Your task to perform on an android device: toggle show notifications on the lock screen Image 0: 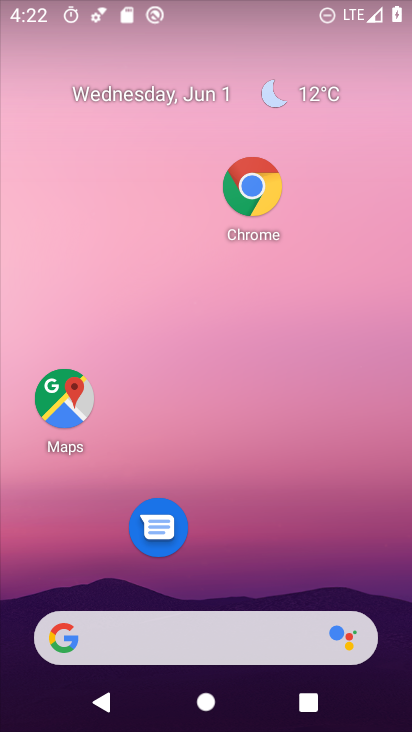
Step 0: drag from (195, 681) to (281, 218)
Your task to perform on an android device: toggle show notifications on the lock screen Image 1: 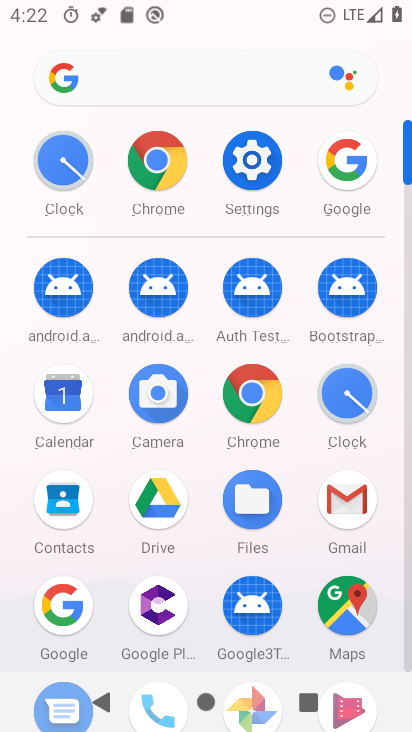
Step 1: click (252, 178)
Your task to perform on an android device: toggle show notifications on the lock screen Image 2: 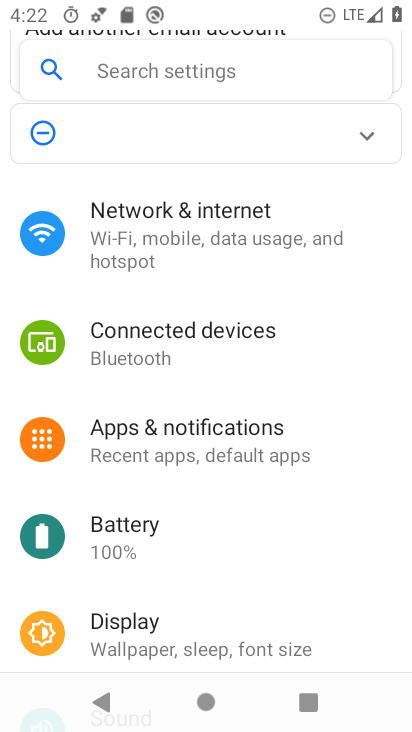
Step 2: click (228, 434)
Your task to perform on an android device: toggle show notifications on the lock screen Image 3: 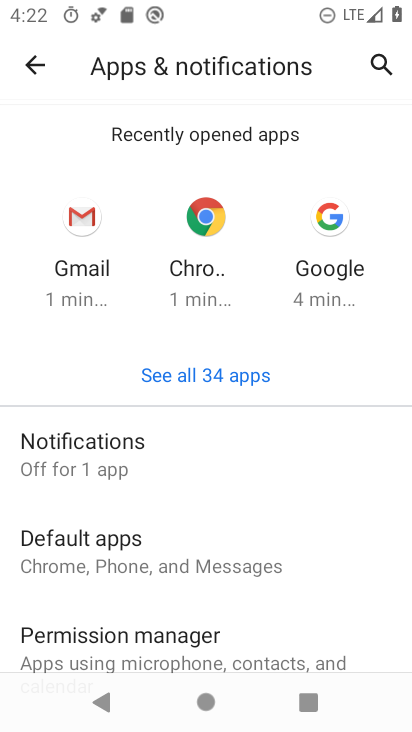
Step 3: click (208, 459)
Your task to perform on an android device: toggle show notifications on the lock screen Image 4: 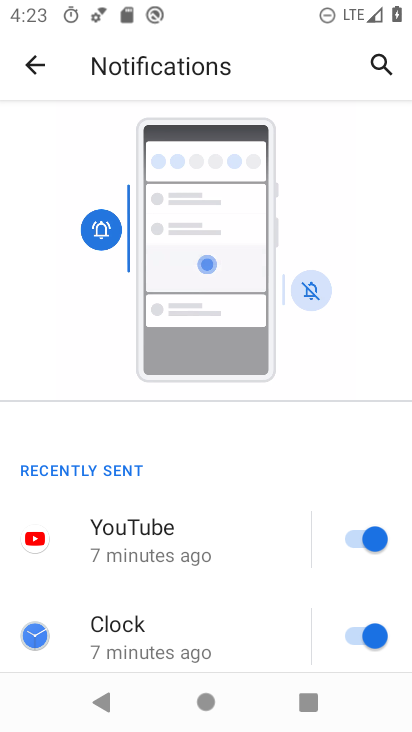
Step 4: click (256, 210)
Your task to perform on an android device: toggle show notifications on the lock screen Image 5: 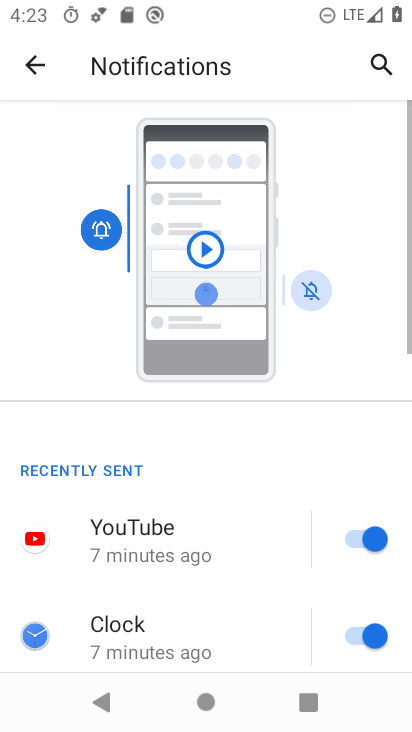
Step 5: drag from (170, 634) to (271, 124)
Your task to perform on an android device: toggle show notifications on the lock screen Image 6: 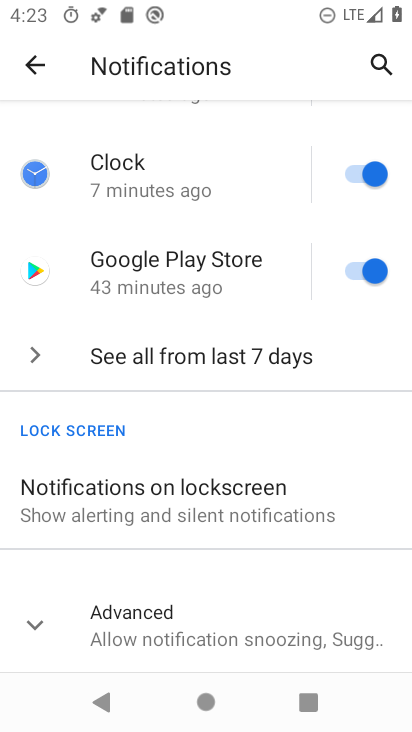
Step 6: drag from (302, 382) to (345, 211)
Your task to perform on an android device: toggle show notifications on the lock screen Image 7: 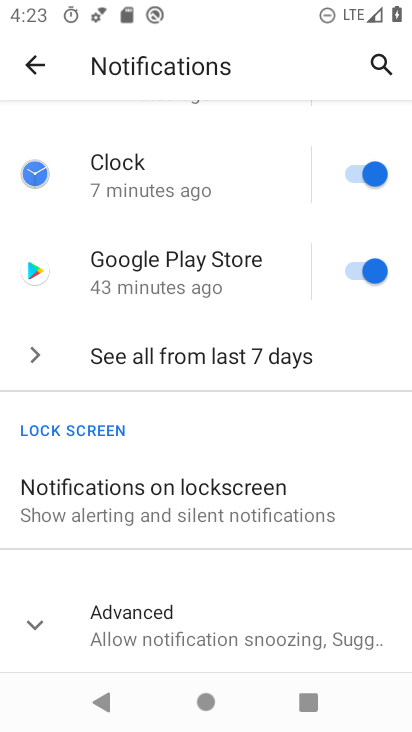
Step 7: click (253, 499)
Your task to perform on an android device: toggle show notifications on the lock screen Image 8: 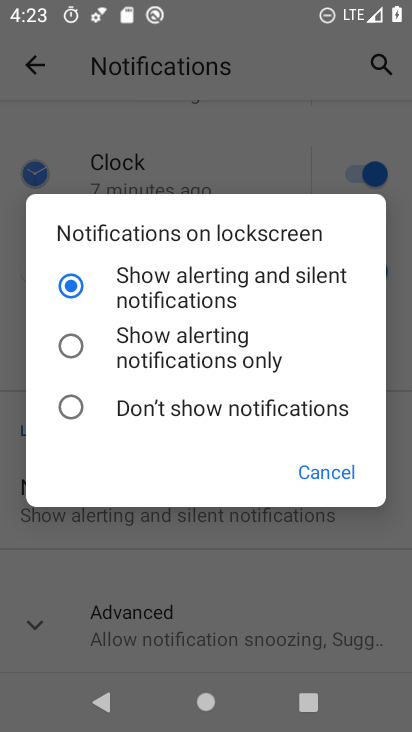
Step 8: click (223, 411)
Your task to perform on an android device: toggle show notifications on the lock screen Image 9: 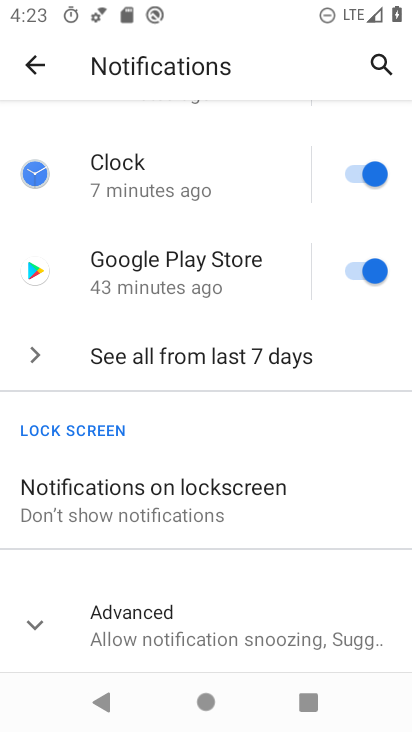
Step 9: task complete